Your task to perform on an android device: Open the stopwatch Image 0: 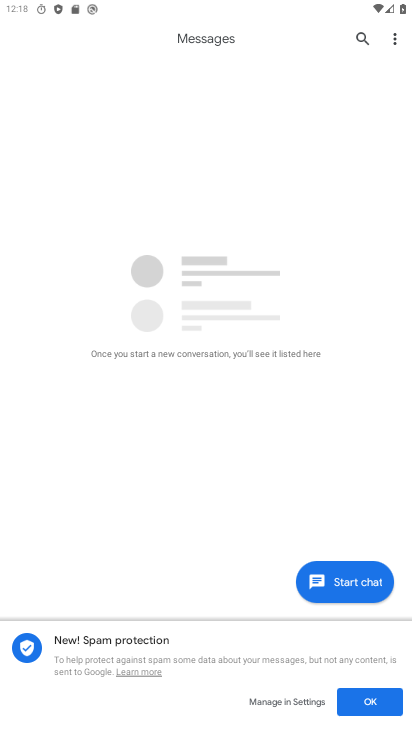
Step 0: press home button
Your task to perform on an android device: Open the stopwatch Image 1: 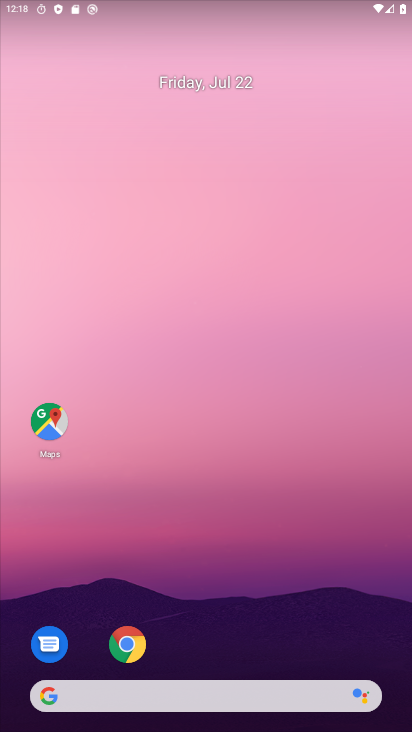
Step 1: drag from (270, 606) to (270, 180)
Your task to perform on an android device: Open the stopwatch Image 2: 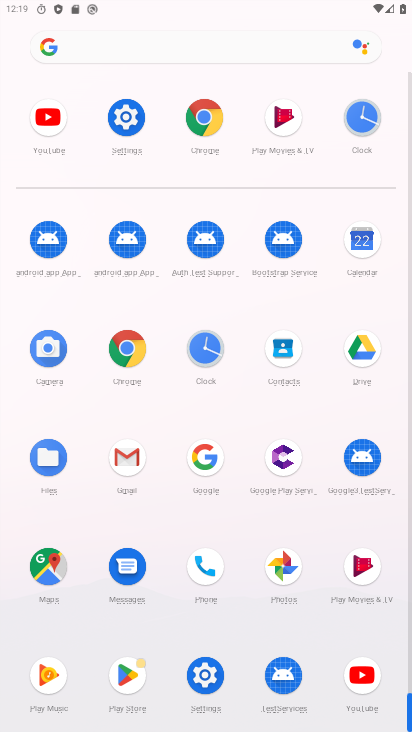
Step 2: click (200, 359)
Your task to perform on an android device: Open the stopwatch Image 3: 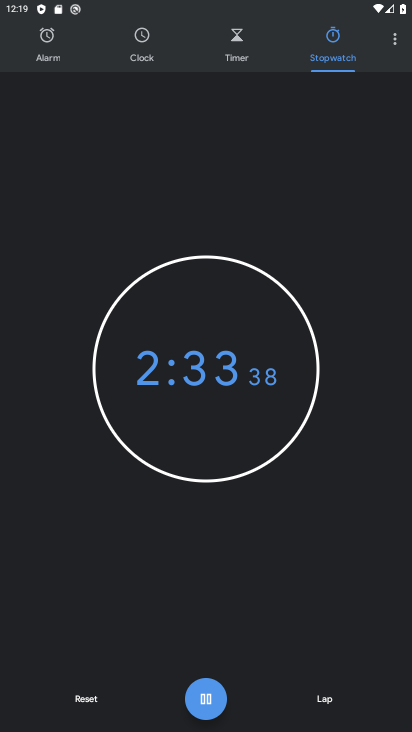
Step 3: task complete